Your task to perform on an android device: check android version Image 0: 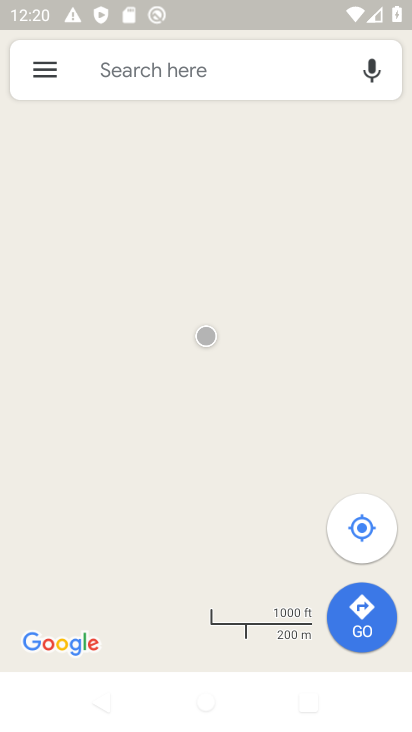
Step 0: press home button
Your task to perform on an android device: check android version Image 1: 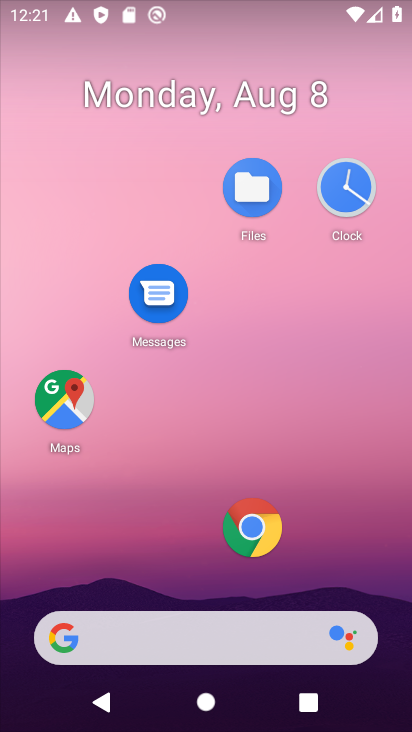
Step 1: drag from (322, 476) to (294, 172)
Your task to perform on an android device: check android version Image 2: 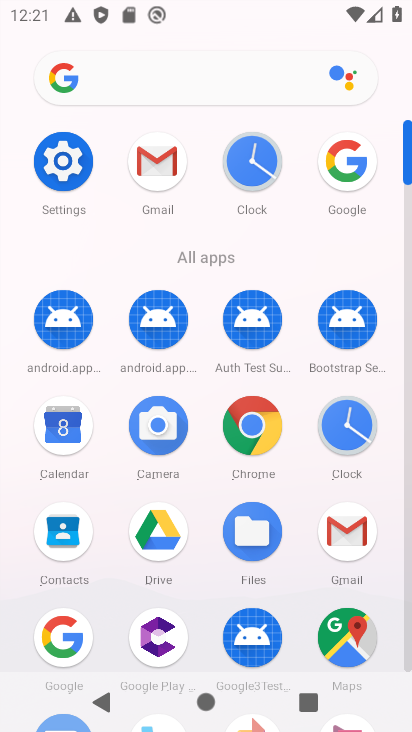
Step 2: drag from (201, 594) to (244, 242)
Your task to perform on an android device: check android version Image 3: 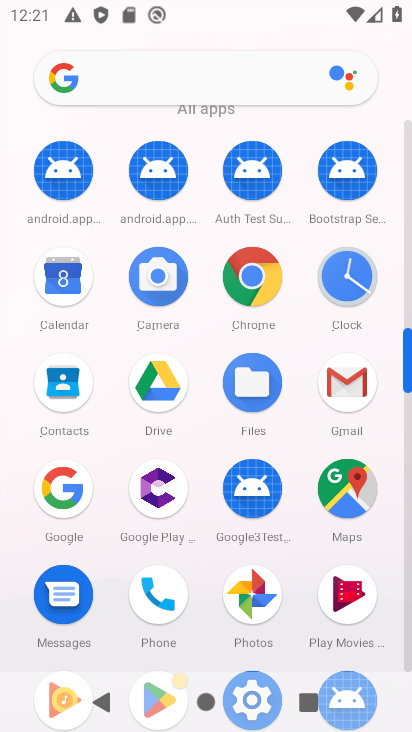
Step 3: drag from (200, 569) to (193, 367)
Your task to perform on an android device: check android version Image 4: 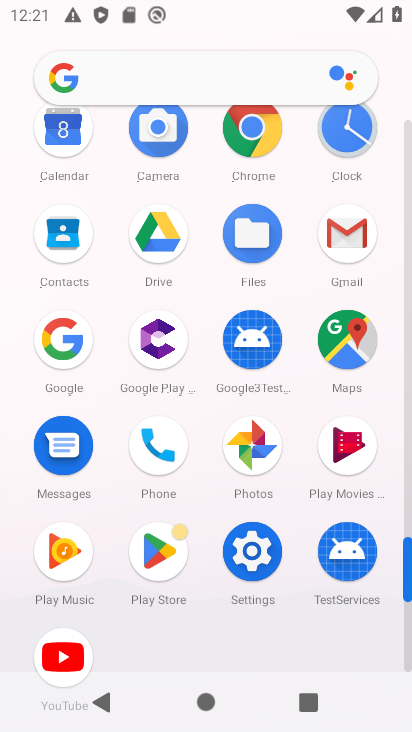
Step 4: click (249, 555)
Your task to perform on an android device: check android version Image 5: 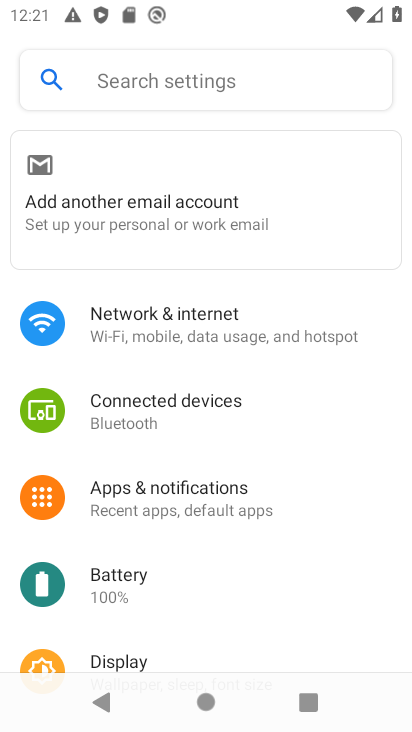
Step 5: task complete